Your task to perform on an android device: Open eBay Image 0: 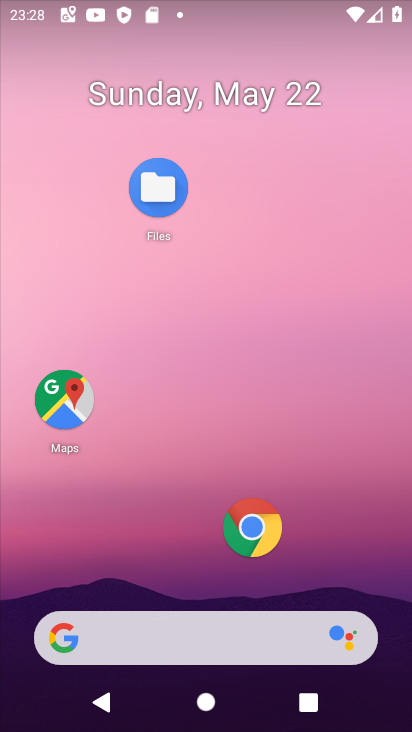
Step 0: click (249, 525)
Your task to perform on an android device: Open eBay Image 1: 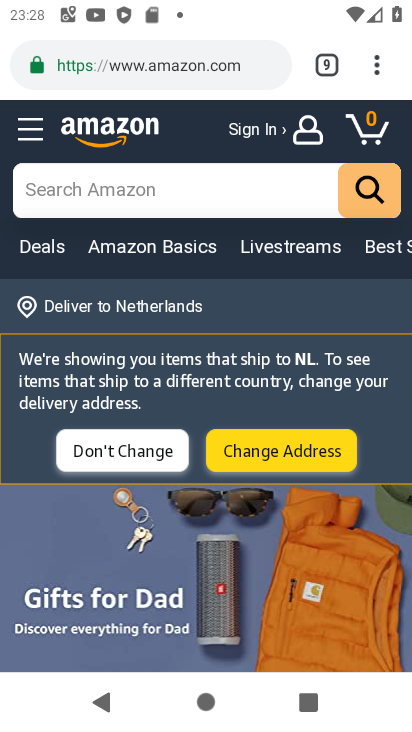
Step 1: click (374, 59)
Your task to perform on an android device: Open eBay Image 2: 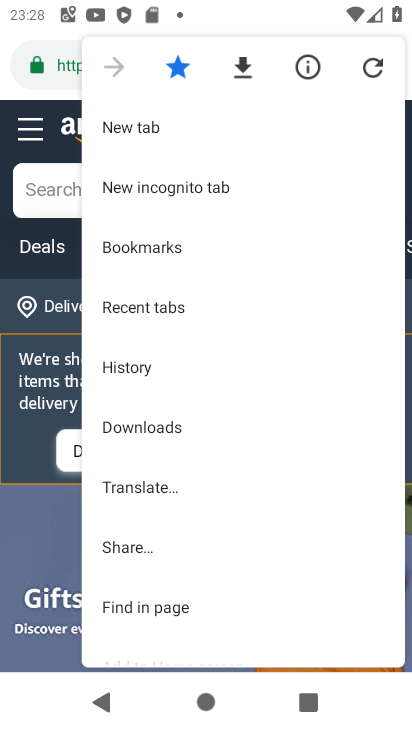
Step 2: click (139, 120)
Your task to perform on an android device: Open eBay Image 3: 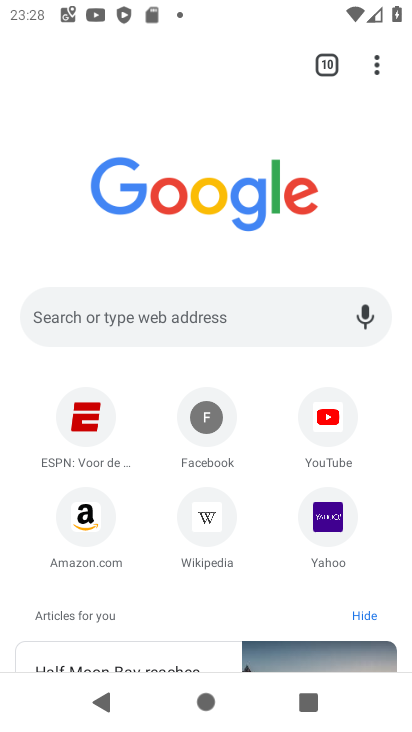
Step 3: click (142, 304)
Your task to perform on an android device: Open eBay Image 4: 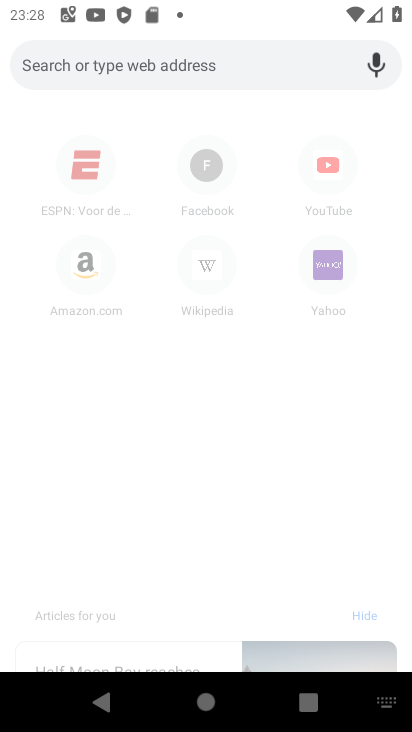
Step 4: type "ebay"
Your task to perform on an android device: Open eBay Image 5: 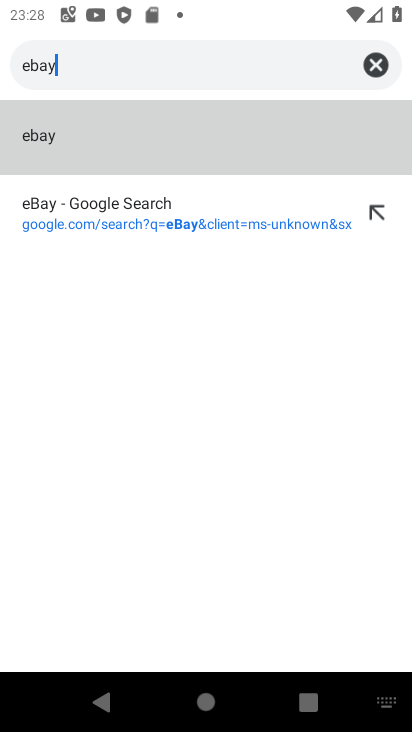
Step 5: click (71, 132)
Your task to perform on an android device: Open eBay Image 6: 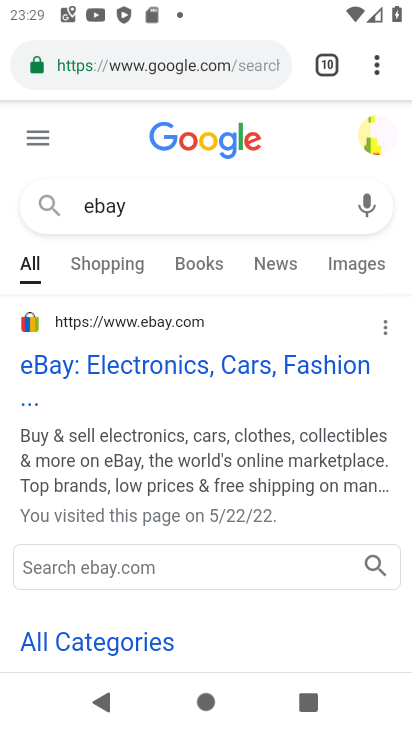
Step 6: task complete